Your task to perform on an android device: Open location settings Image 0: 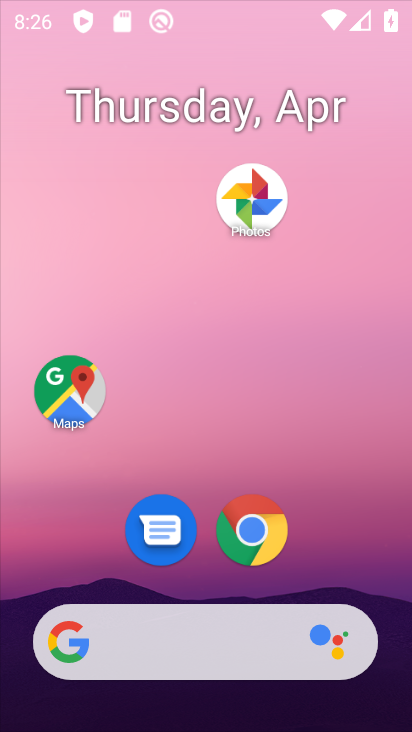
Step 0: drag from (345, 569) to (379, 175)
Your task to perform on an android device: Open location settings Image 1: 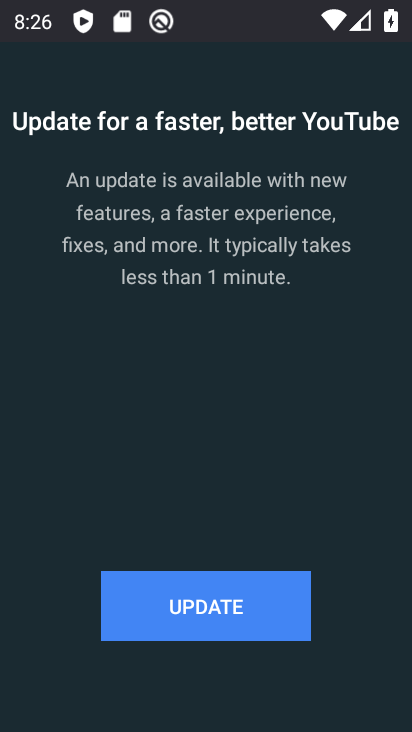
Step 1: press home button
Your task to perform on an android device: Open location settings Image 2: 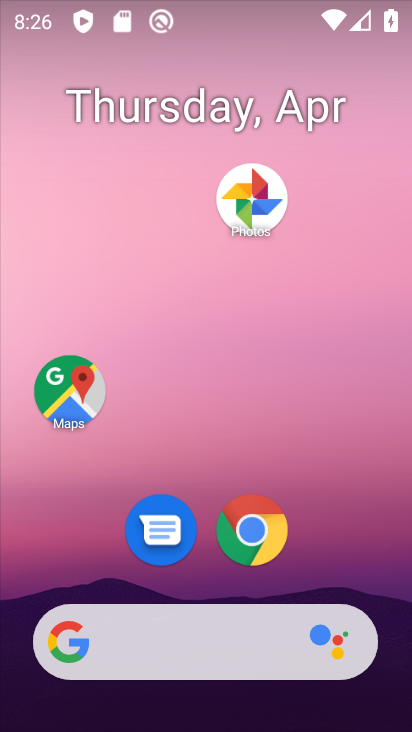
Step 2: drag from (323, 550) to (393, 93)
Your task to perform on an android device: Open location settings Image 3: 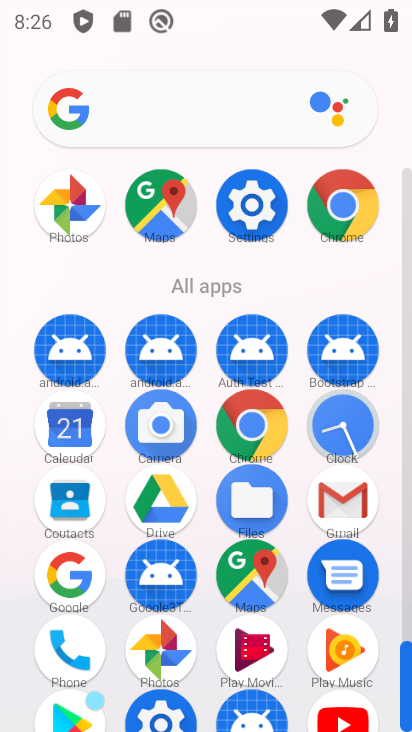
Step 3: drag from (291, 634) to (323, 345)
Your task to perform on an android device: Open location settings Image 4: 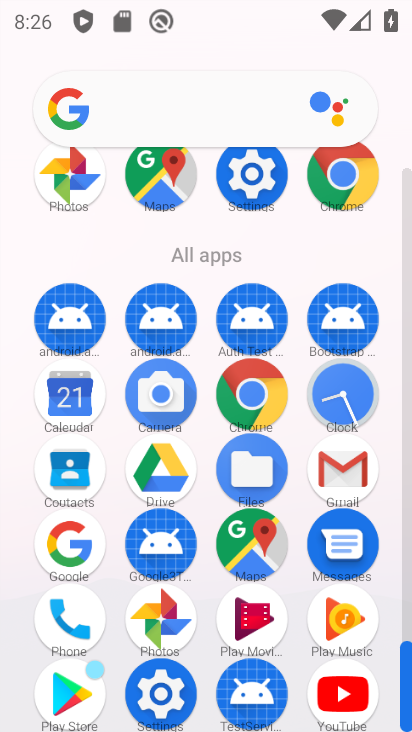
Step 4: click (158, 683)
Your task to perform on an android device: Open location settings Image 5: 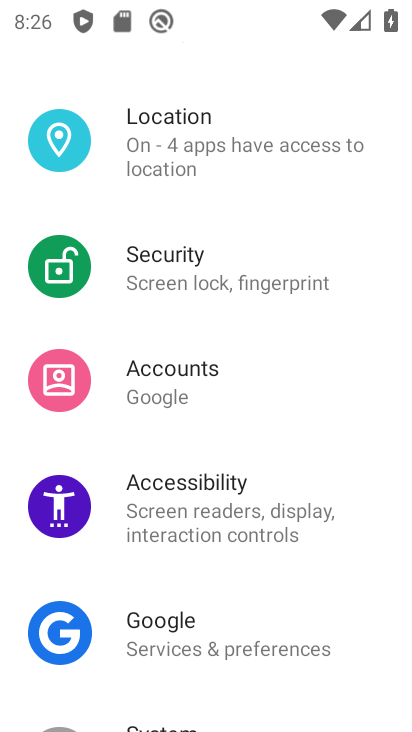
Step 5: drag from (238, 622) to (308, 131)
Your task to perform on an android device: Open location settings Image 6: 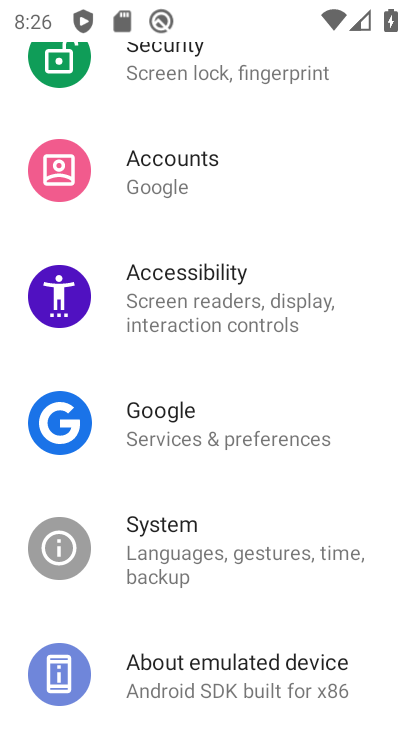
Step 6: drag from (240, 534) to (250, 674)
Your task to perform on an android device: Open location settings Image 7: 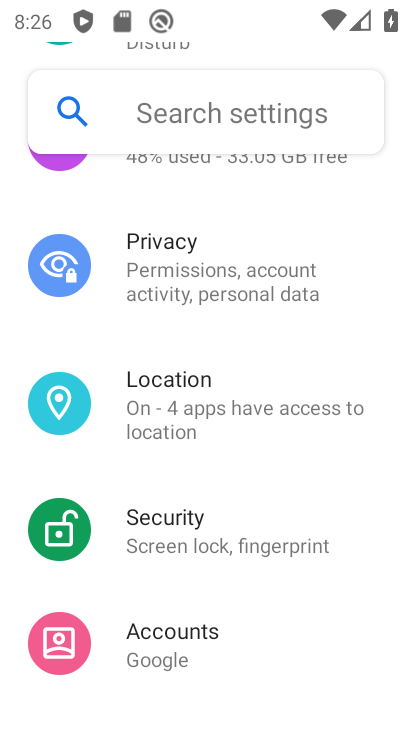
Step 7: drag from (267, 319) to (273, 418)
Your task to perform on an android device: Open location settings Image 8: 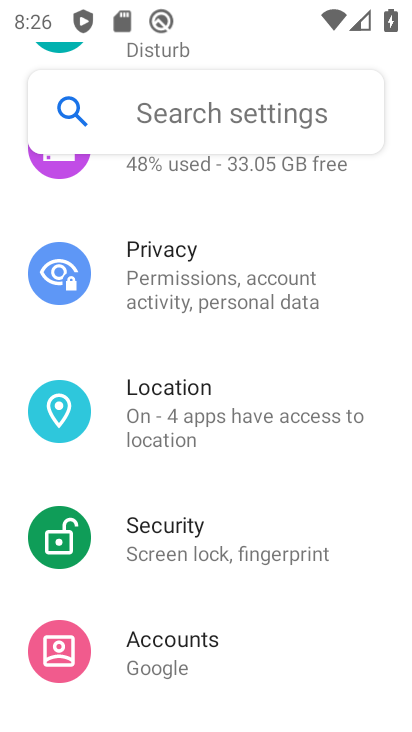
Step 8: click (183, 430)
Your task to perform on an android device: Open location settings Image 9: 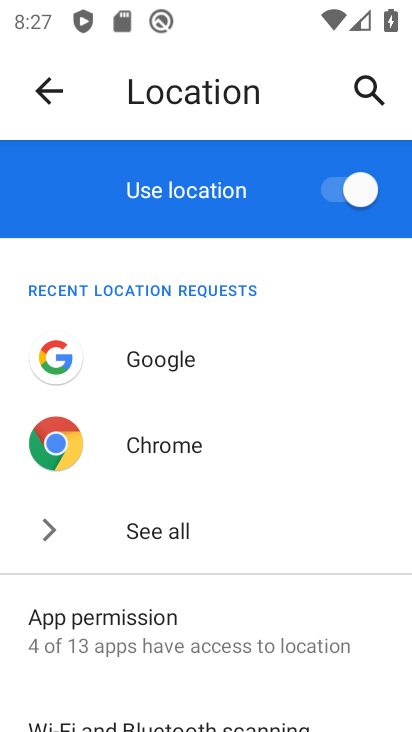
Step 9: task complete